Your task to perform on an android device: delete a single message in the gmail app Image 0: 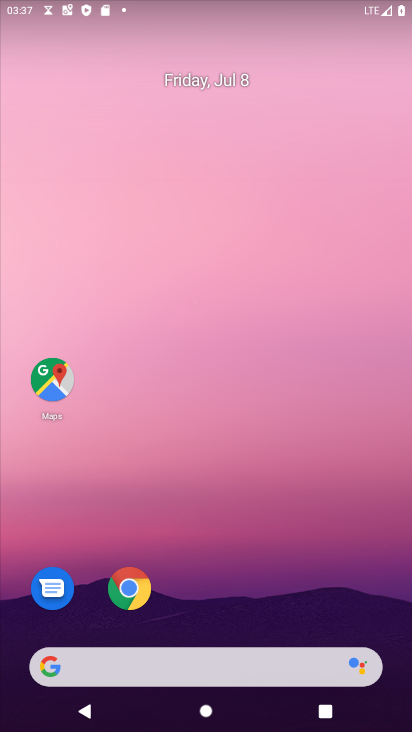
Step 0: drag from (183, 634) to (232, 0)
Your task to perform on an android device: delete a single message in the gmail app Image 1: 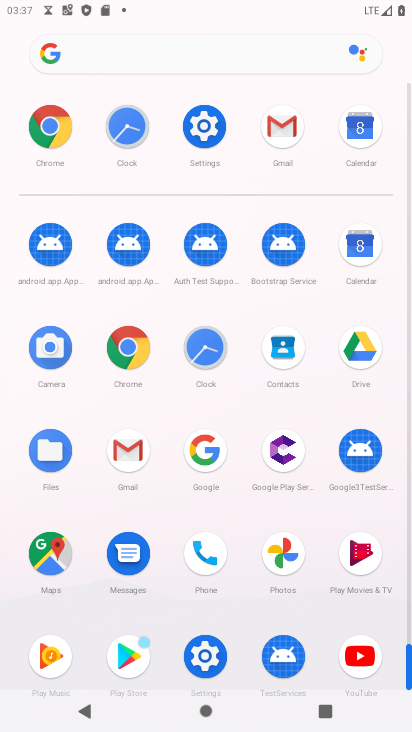
Step 1: click (289, 130)
Your task to perform on an android device: delete a single message in the gmail app Image 2: 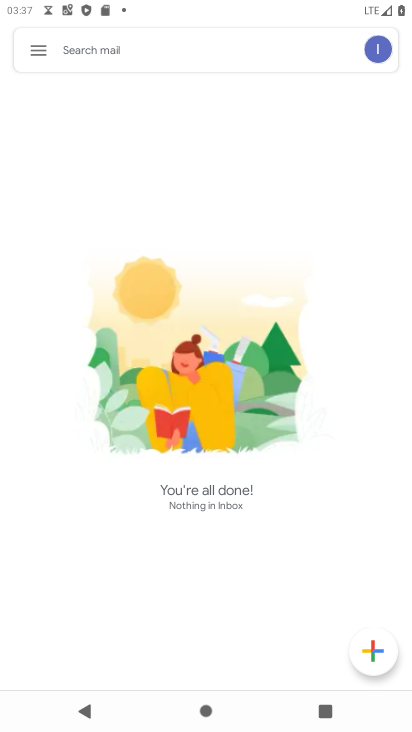
Step 2: click (37, 55)
Your task to perform on an android device: delete a single message in the gmail app Image 3: 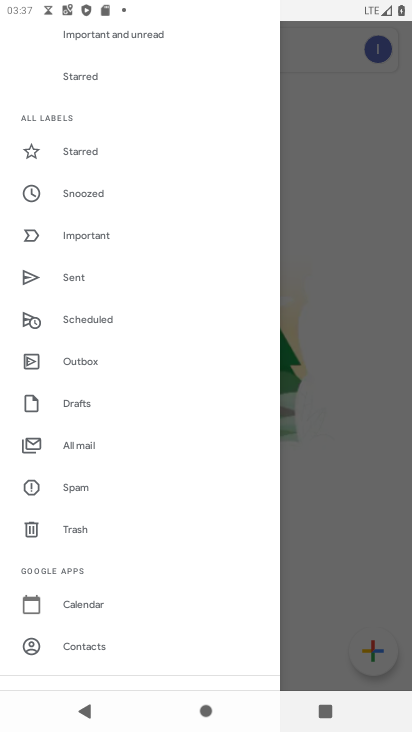
Step 3: click (88, 444)
Your task to perform on an android device: delete a single message in the gmail app Image 4: 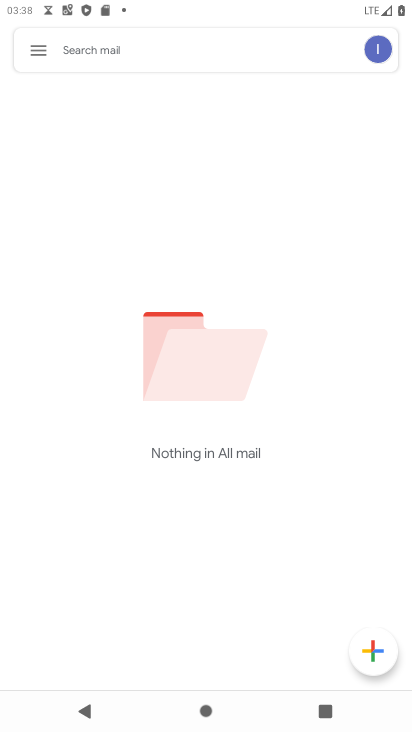
Step 4: task complete